Your task to perform on an android device: choose inbox layout in the gmail app Image 0: 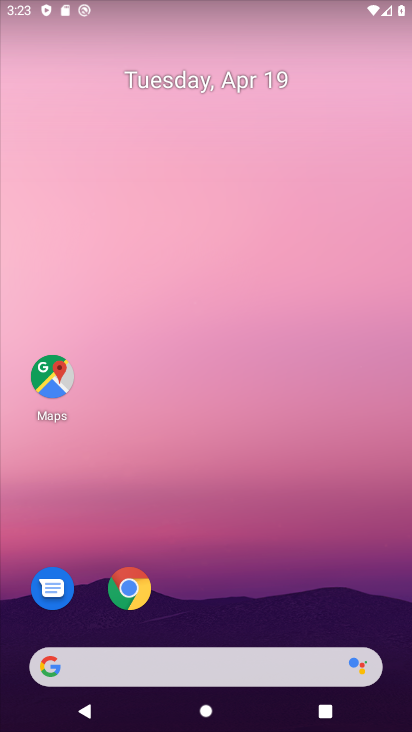
Step 0: drag from (219, 577) to (211, 141)
Your task to perform on an android device: choose inbox layout in the gmail app Image 1: 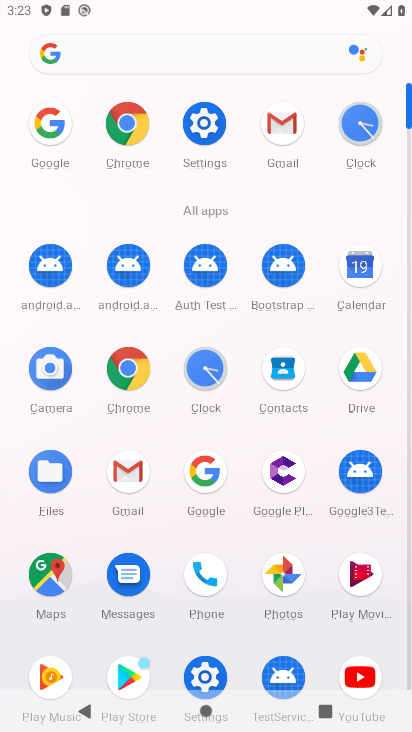
Step 1: click (201, 123)
Your task to perform on an android device: choose inbox layout in the gmail app Image 2: 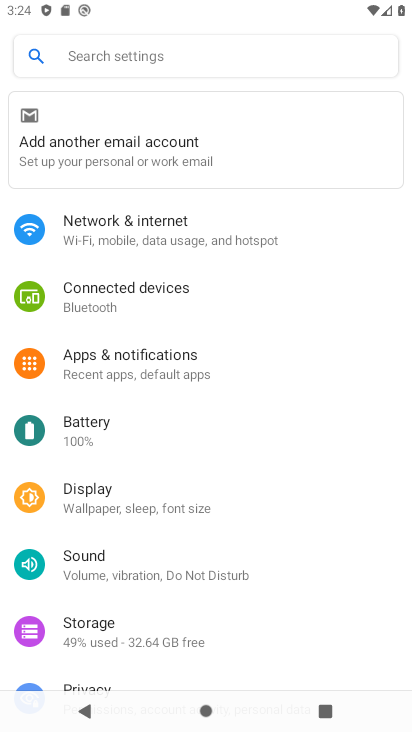
Step 2: press home button
Your task to perform on an android device: choose inbox layout in the gmail app Image 3: 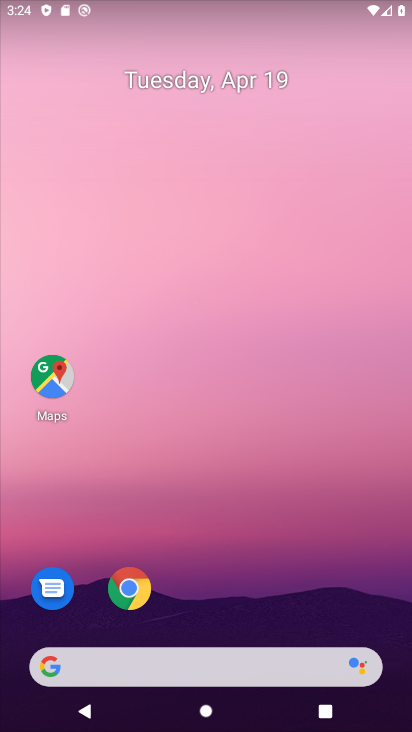
Step 3: drag from (230, 566) to (197, 178)
Your task to perform on an android device: choose inbox layout in the gmail app Image 4: 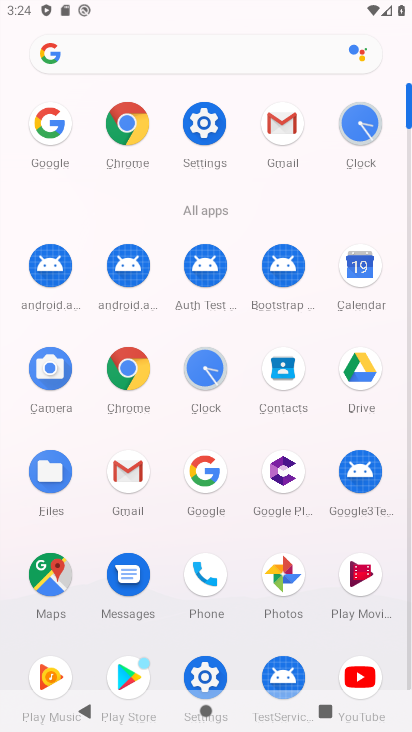
Step 4: click (281, 119)
Your task to perform on an android device: choose inbox layout in the gmail app Image 5: 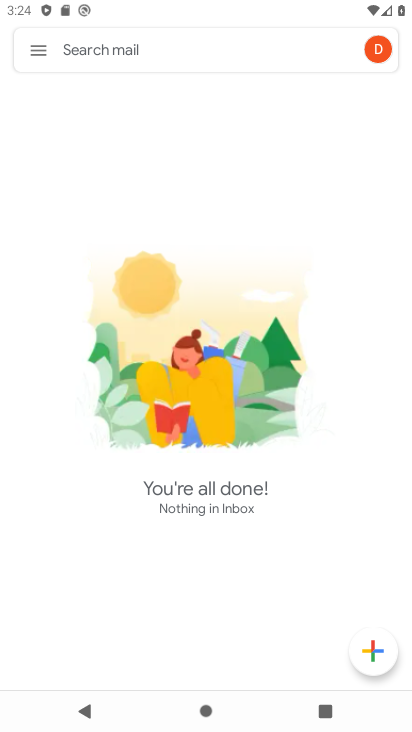
Step 5: click (35, 43)
Your task to perform on an android device: choose inbox layout in the gmail app Image 6: 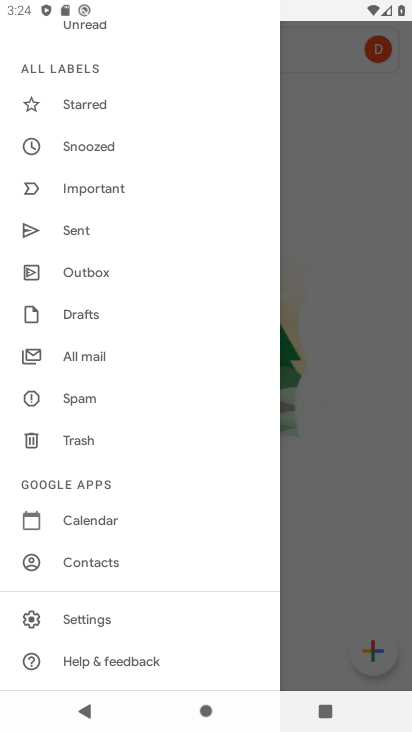
Step 6: click (121, 626)
Your task to perform on an android device: choose inbox layout in the gmail app Image 7: 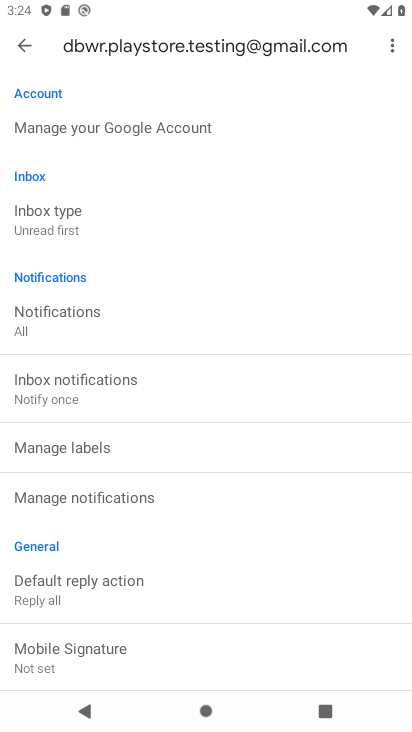
Step 7: click (58, 203)
Your task to perform on an android device: choose inbox layout in the gmail app Image 8: 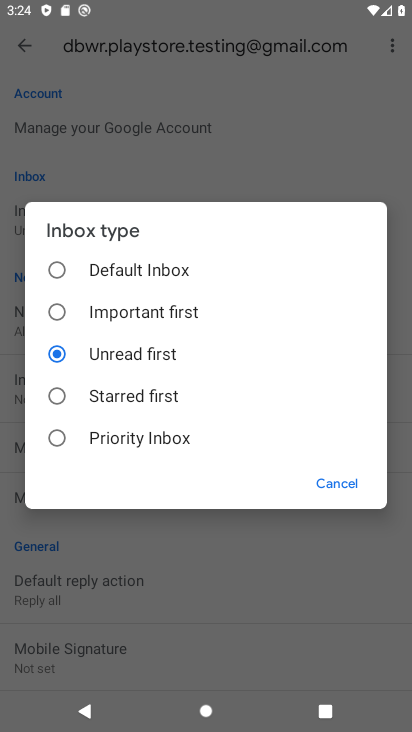
Step 8: click (140, 273)
Your task to perform on an android device: choose inbox layout in the gmail app Image 9: 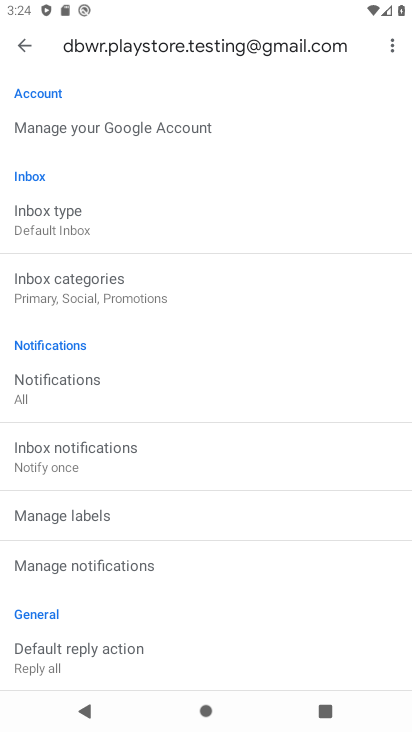
Step 9: task complete